Your task to perform on an android device: Go to Maps Image 0: 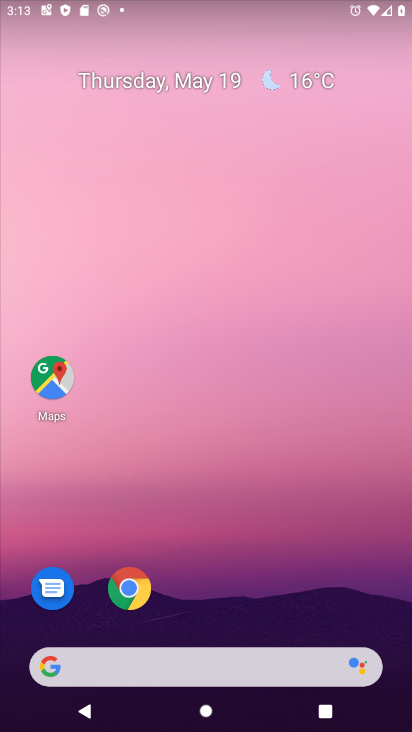
Step 0: click (58, 371)
Your task to perform on an android device: Go to Maps Image 1: 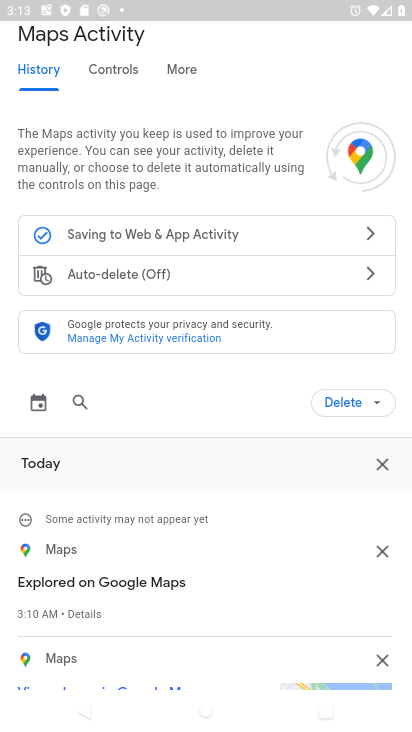
Step 1: task complete